Your task to perform on an android device: Open network settings Image 0: 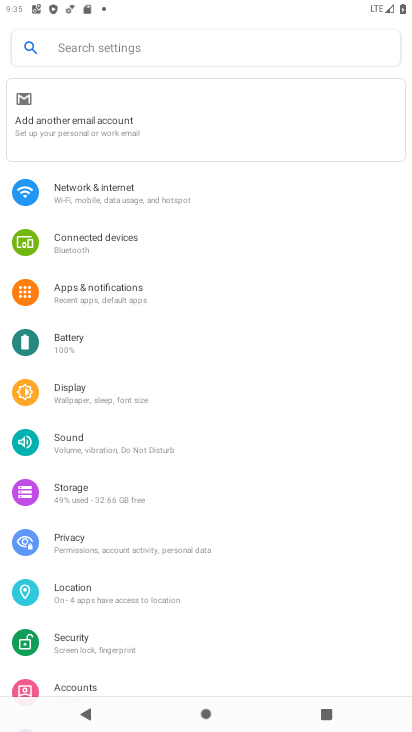
Step 0: click (98, 182)
Your task to perform on an android device: Open network settings Image 1: 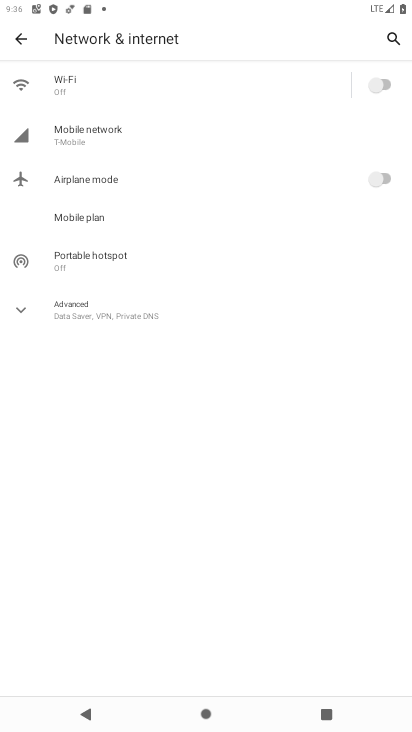
Step 1: task complete